Your task to perform on an android device: Open CNN.com Image 0: 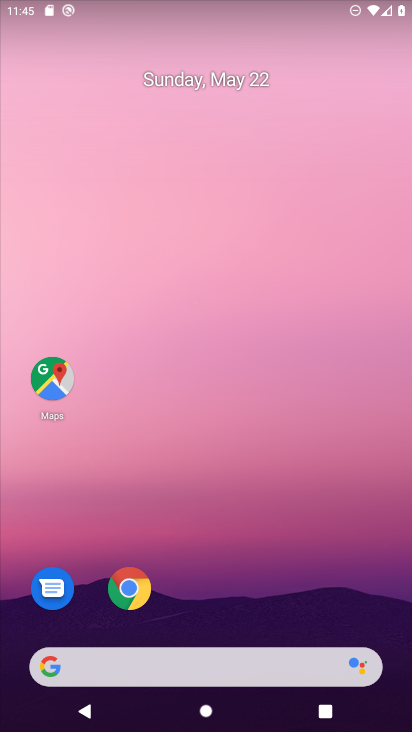
Step 0: press home button
Your task to perform on an android device: Open CNN.com Image 1: 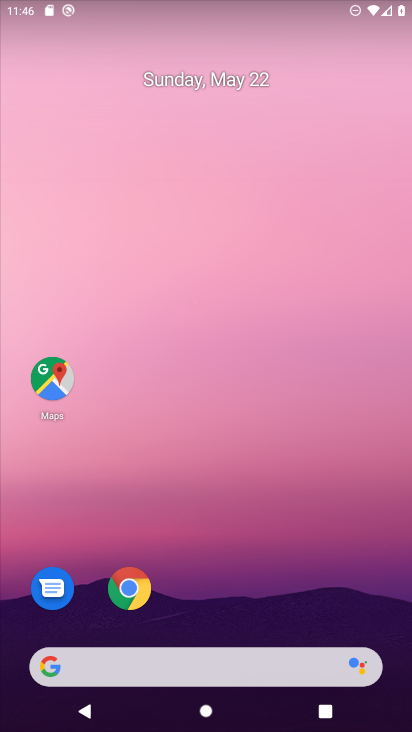
Step 1: drag from (249, 685) to (403, 3)
Your task to perform on an android device: Open CNN.com Image 2: 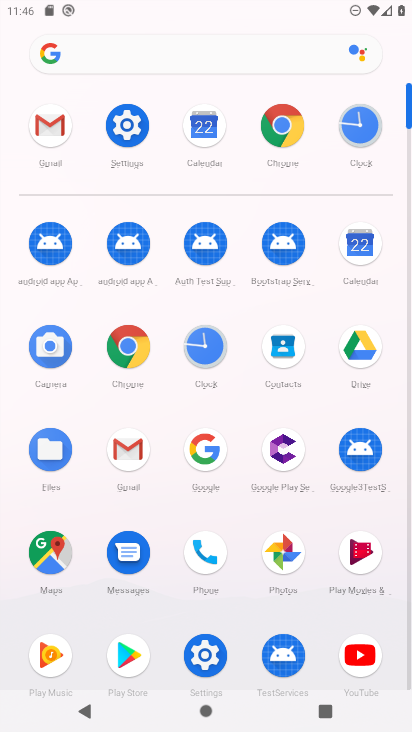
Step 2: click (299, 126)
Your task to perform on an android device: Open CNN.com Image 3: 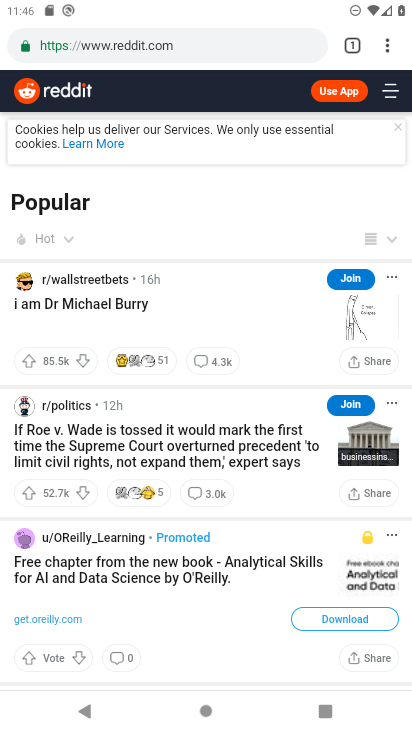
Step 3: click (148, 57)
Your task to perform on an android device: Open CNN.com Image 4: 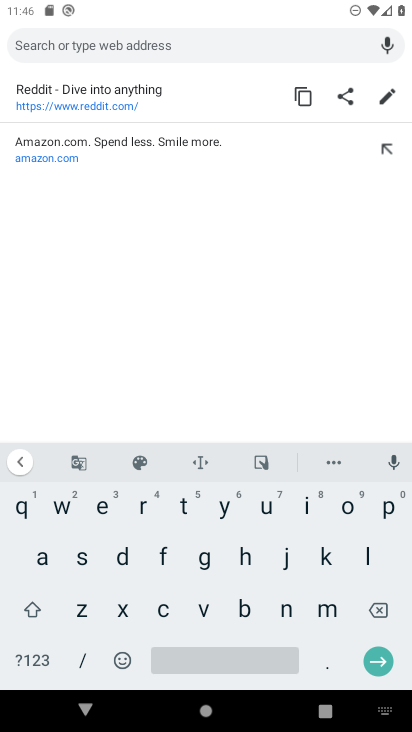
Step 4: click (161, 611)
Your task to perform on an android device: Open CNN.com Image 5: 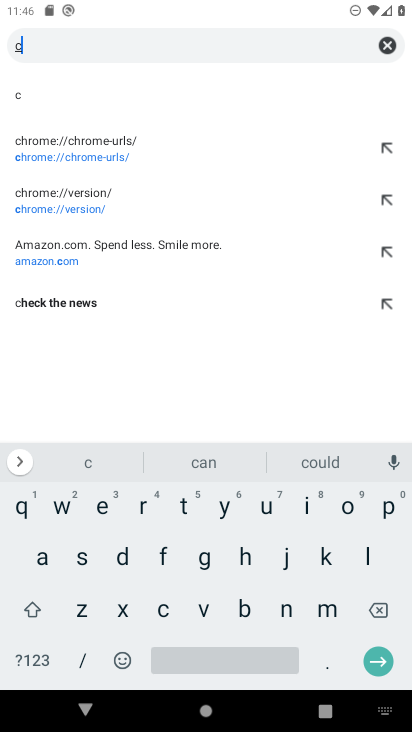
Step 5: click (282, 614)
Your task to perform on an android device: Open CNN.com Image 6: 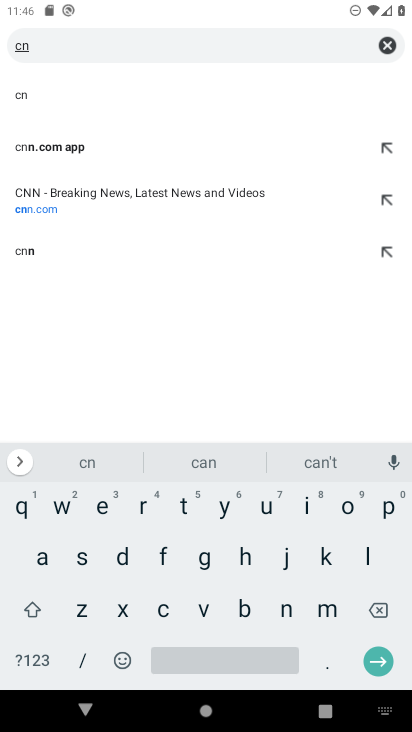
Step 6: click (282, 614)
Your task to perform on an android device: Open CNN.com Image 7: 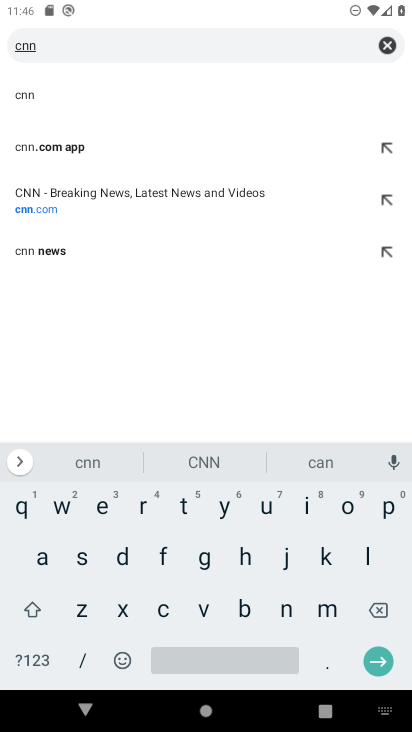
Step 7: click (325, 668)
Your task to perform on an android device: Open CNN.com Image 8: 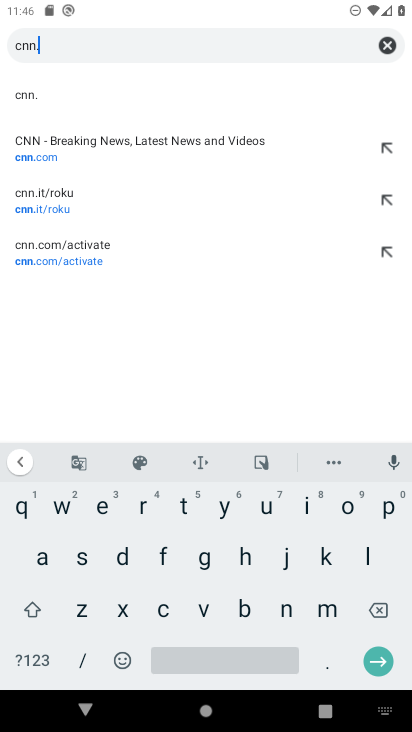
Step 8: click (158, 608)
Your task to perform on an android device: Open CNN.com Image 9: 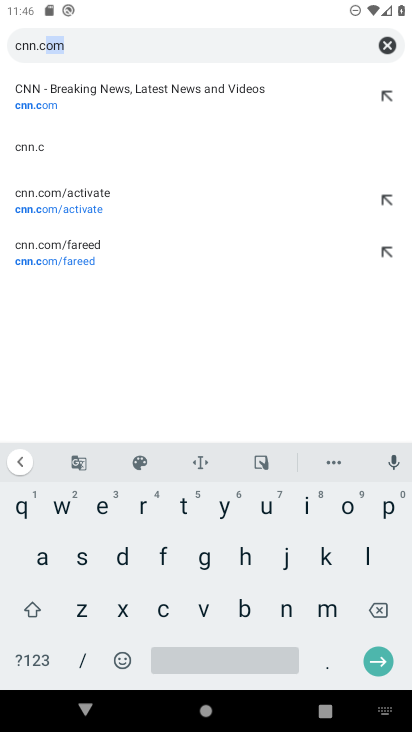
Step 9: click (343, 509)
Your task to perform on an android device: Open CNN.com Image 10: 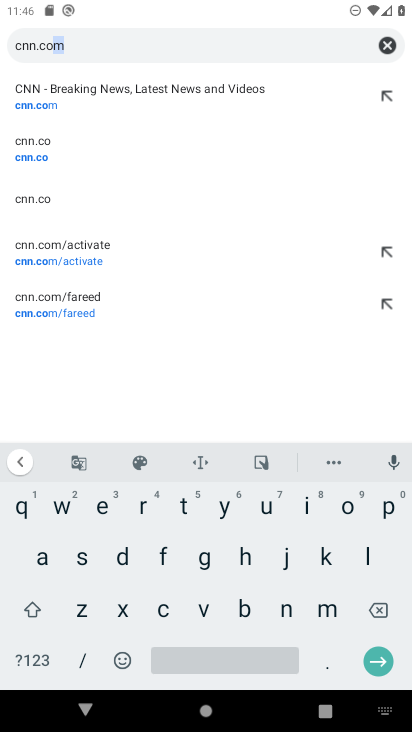
Step 10: click (330, 615)
Your task to perform on an android device: Open CNN.com Image 11: 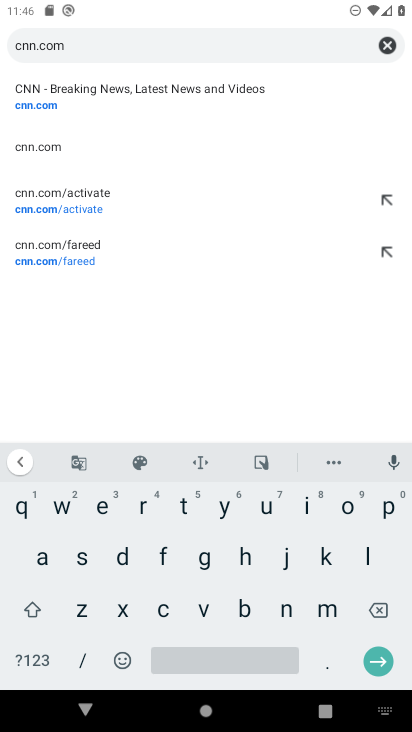
Step 11: click (66, 147)
Your task to perform on an android device: Open CNN.com Image 12: 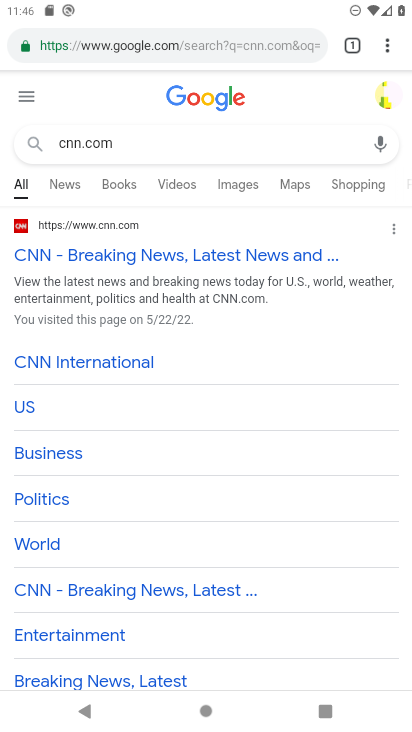
Step 12: click (159, 254)
Your task to perform on an android device: Open CNN.com Image 13: 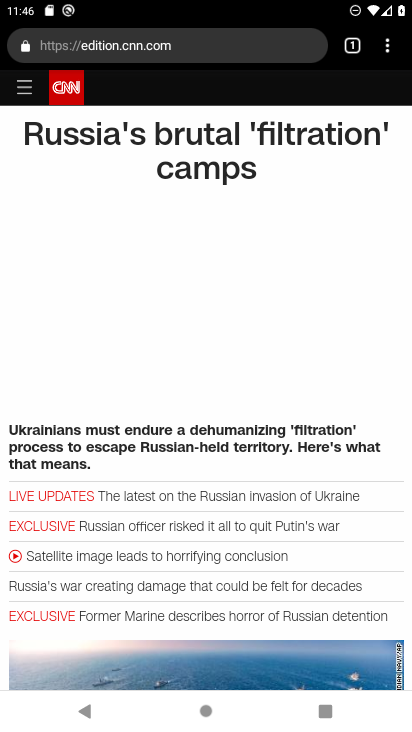
Step 13: task complete